Your task to perform on an android device: What's the weather? Image 0: 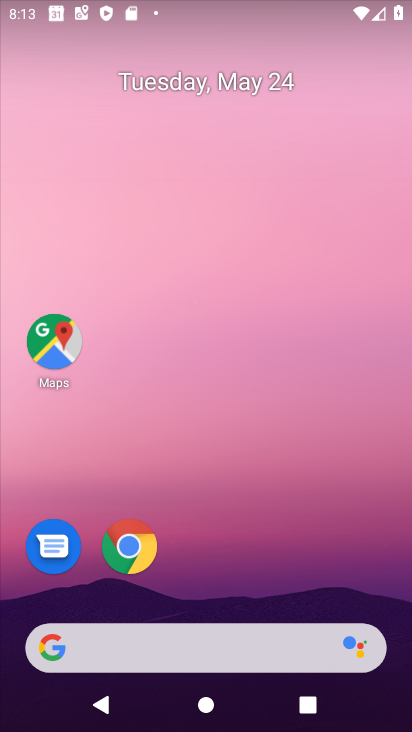
Step 0: click (264, 653)
Your task to perform on an android device: What's the weather? Image 1: 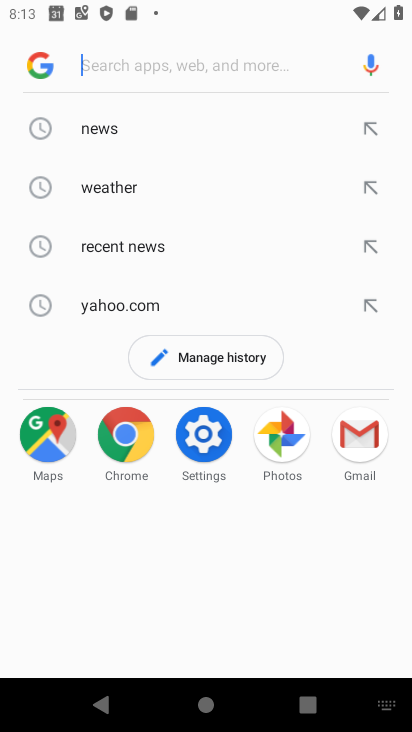
Step 1: click (99, 178)
Your task to perform on an android device: What's the weather? Image 2: 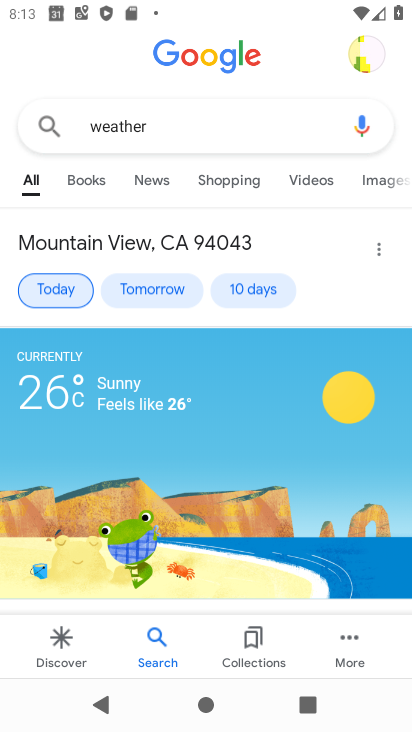
Step 2: click (80, 282)
Your task to perform on an android device: What's the weather? Image 3: 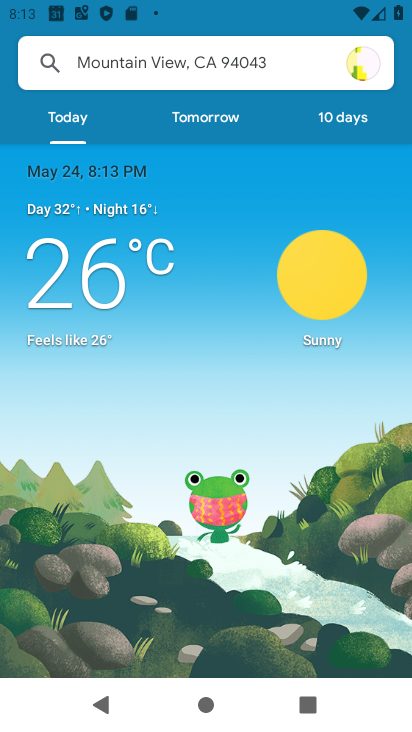
Step 3: task complete